Your task to perform on an android device: toggle javascript in the chrome app Image 0: 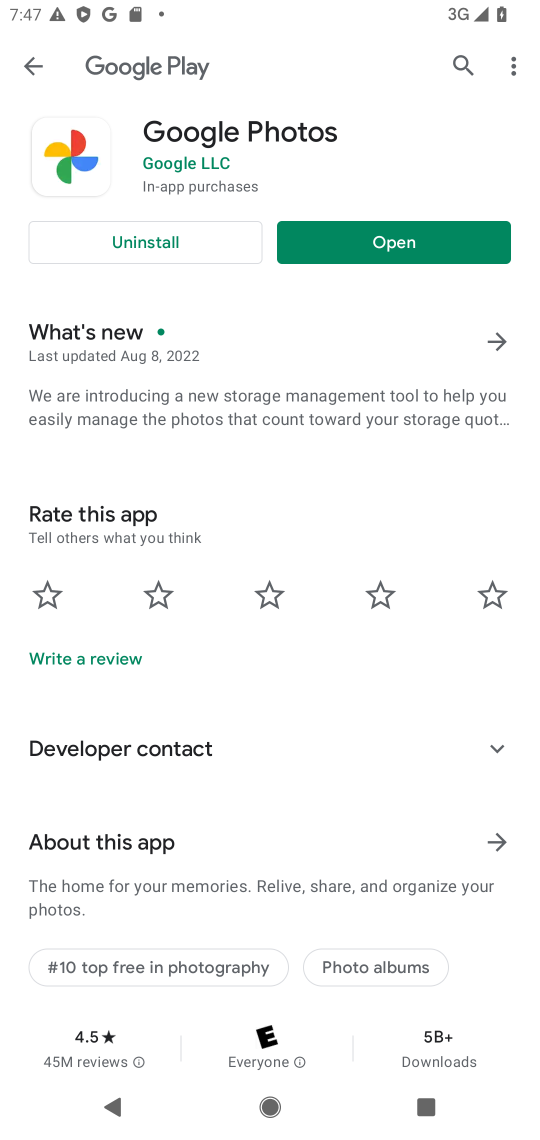
Step 0: press home button
Your task to perform on an android device: toggle javascript in the chrome app Image 1: 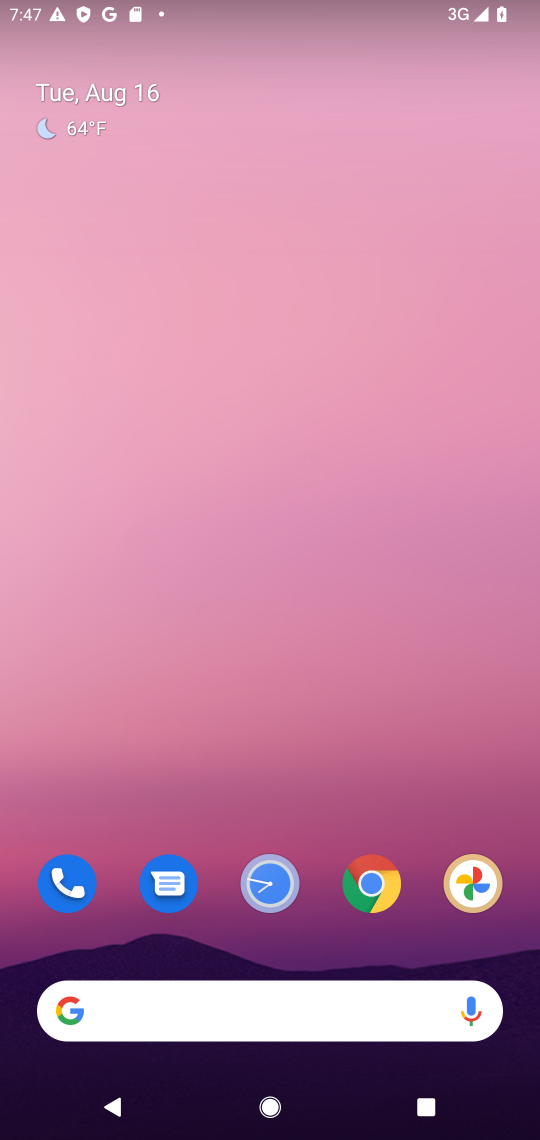
Step 1: click (372, 888)
Your task to perform on an android device: toggle javascript in the chrome app Image 2: 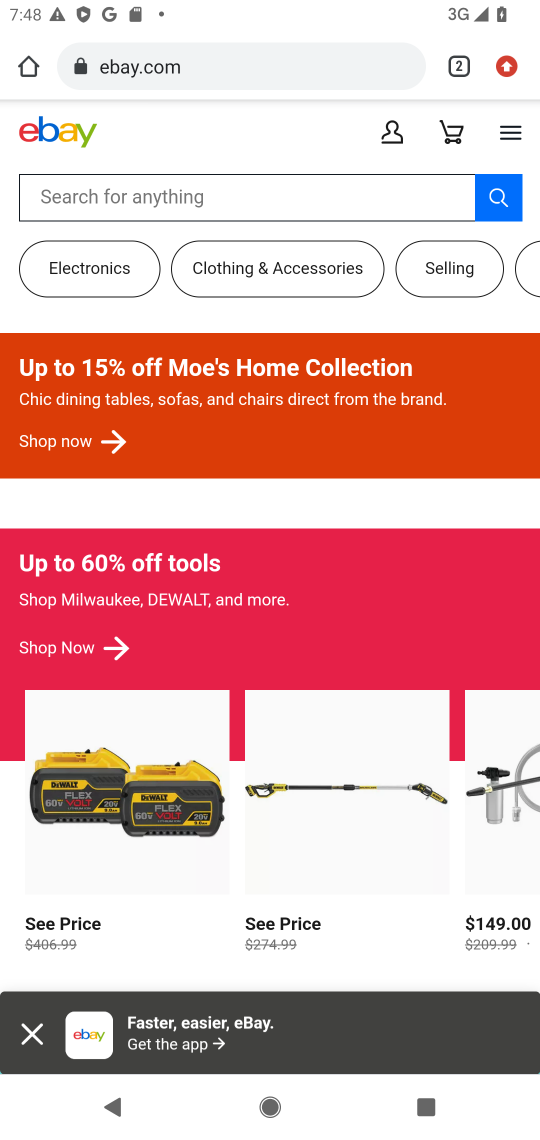
Step 2: click (504, 74)
Your task to perform on an android device: toggle javascript in the chrome app Image 3: 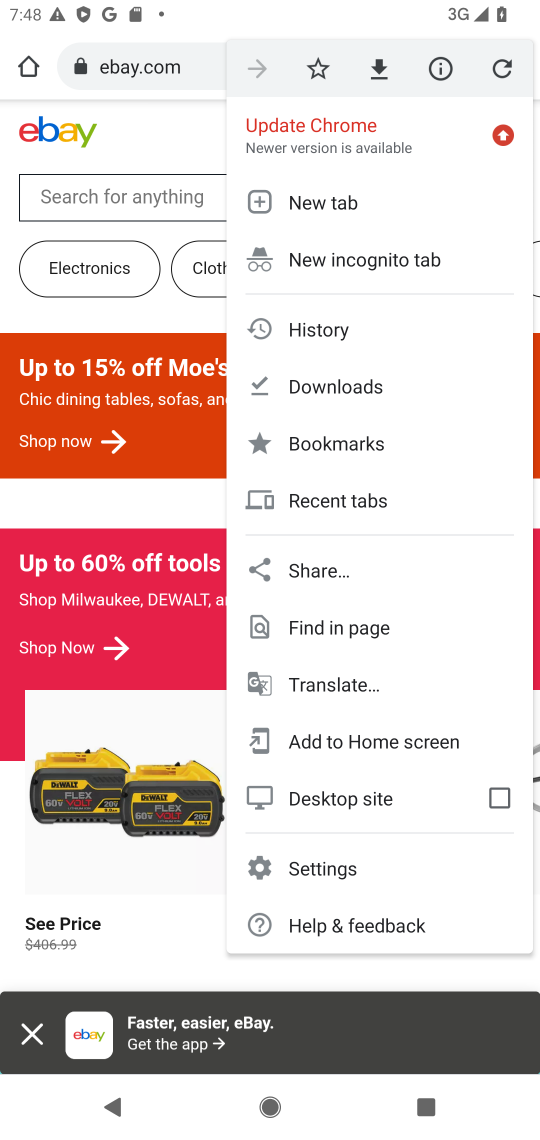
Step 3: click (309, 868)
Your task to perform on an android device: toggle javascript in the chrome app Image 4: 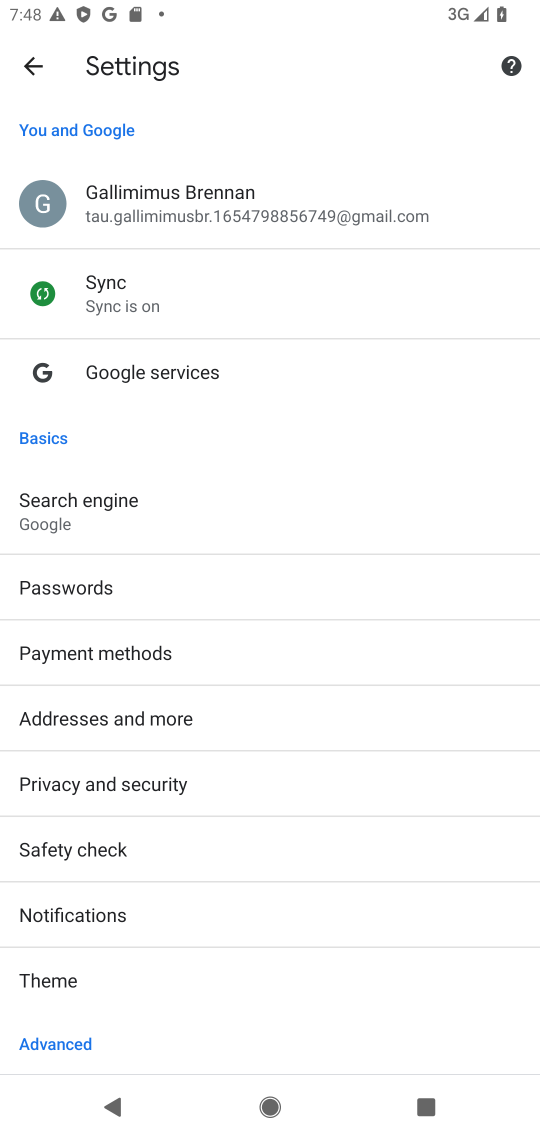
Step 4: drag from (148, 968) to (215, 867)
Your task to perform on an android device: toggle javascript in the chrome app Image 5: 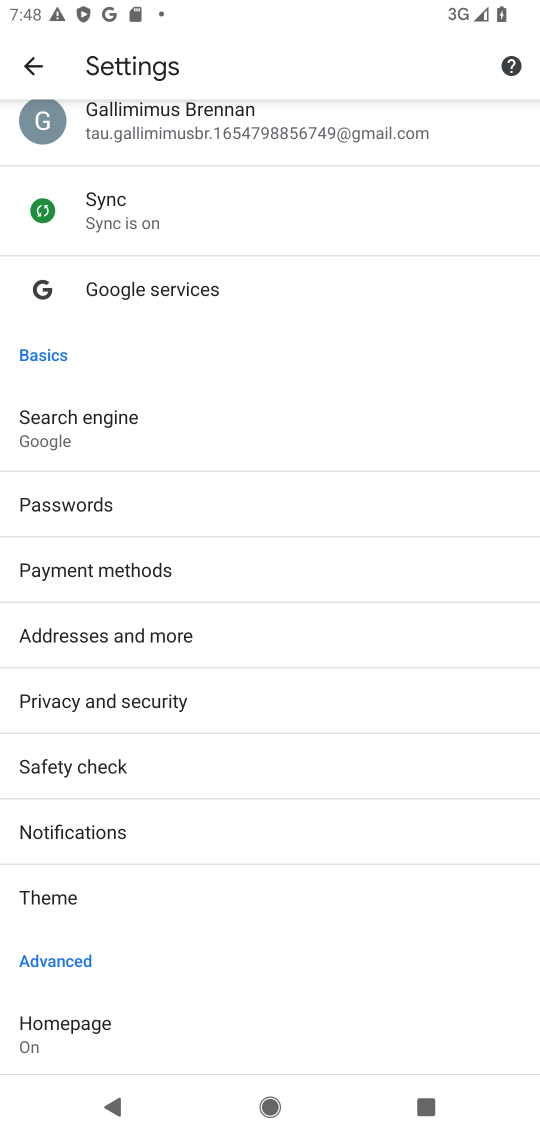
Step 5: drag from (198, 940) to (248, 839)
Your task to perform on an android device: toggle javascript in the chrome app Image 6: 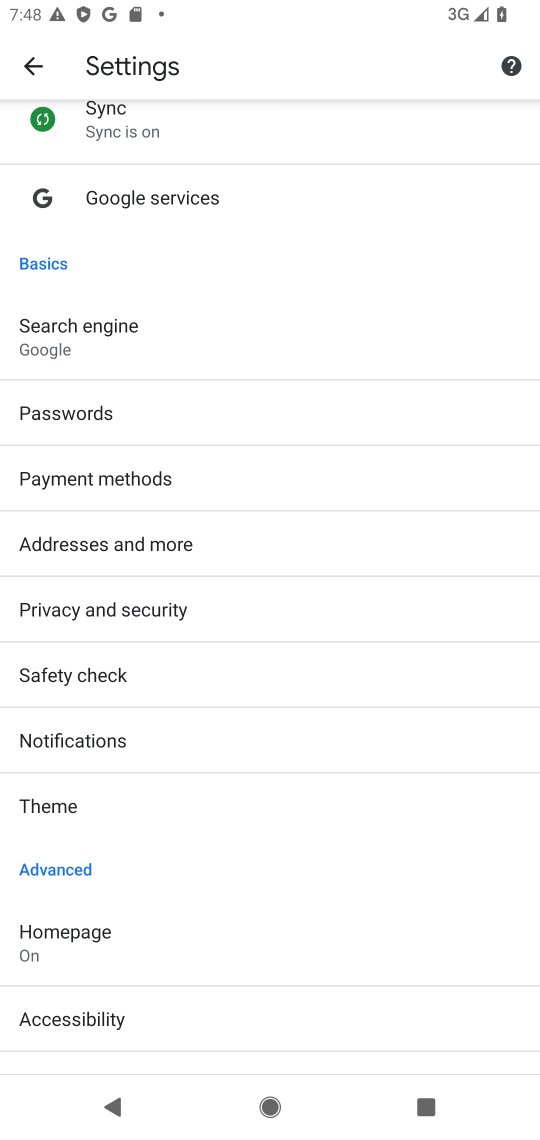
Step 6: drag from (206, 918) to (250, 818)
Your task to perform on an android device: toggle javascript in the chrome app Image 7: 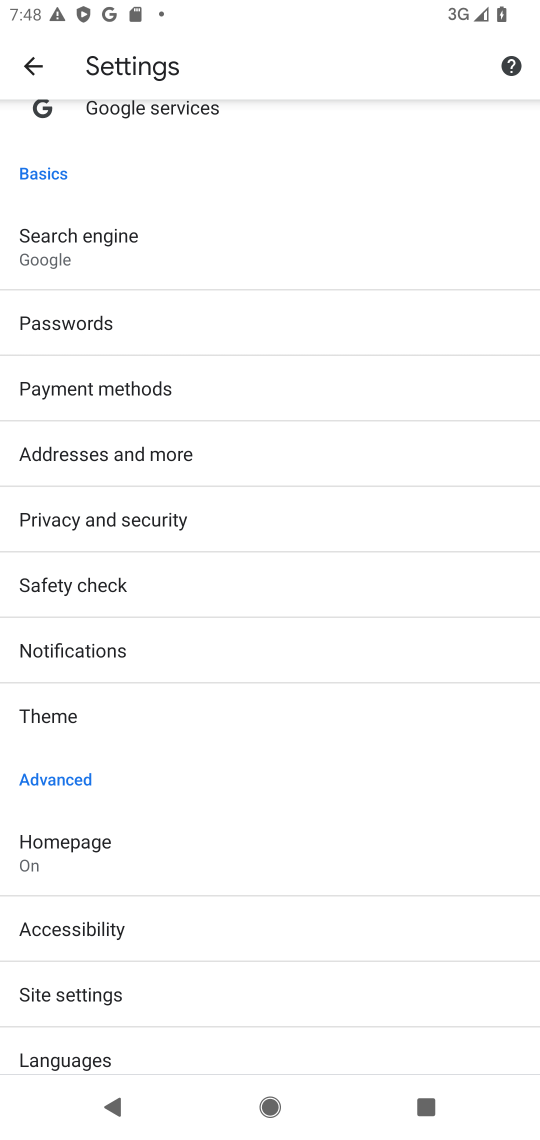
Step 7: drag from (202, 840) to (292, 668)
Your task to perform on an android device: toggle javascript in the chrome app Image 8: 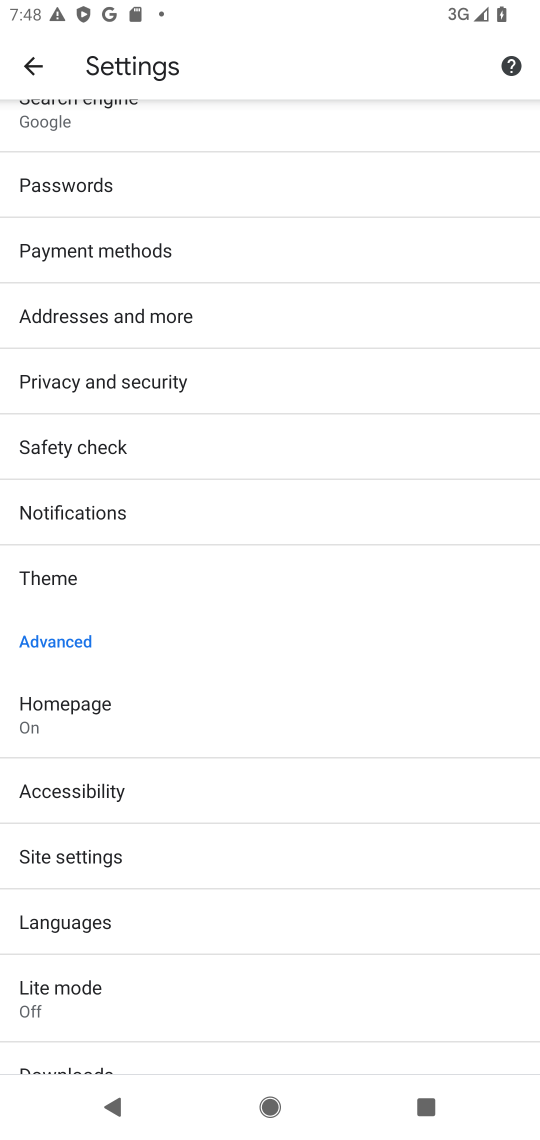
Step 8: drag from (157, 897) to (207, 789)
Your task to perform on an android device: toggle javascript in the chrome app Image 9: 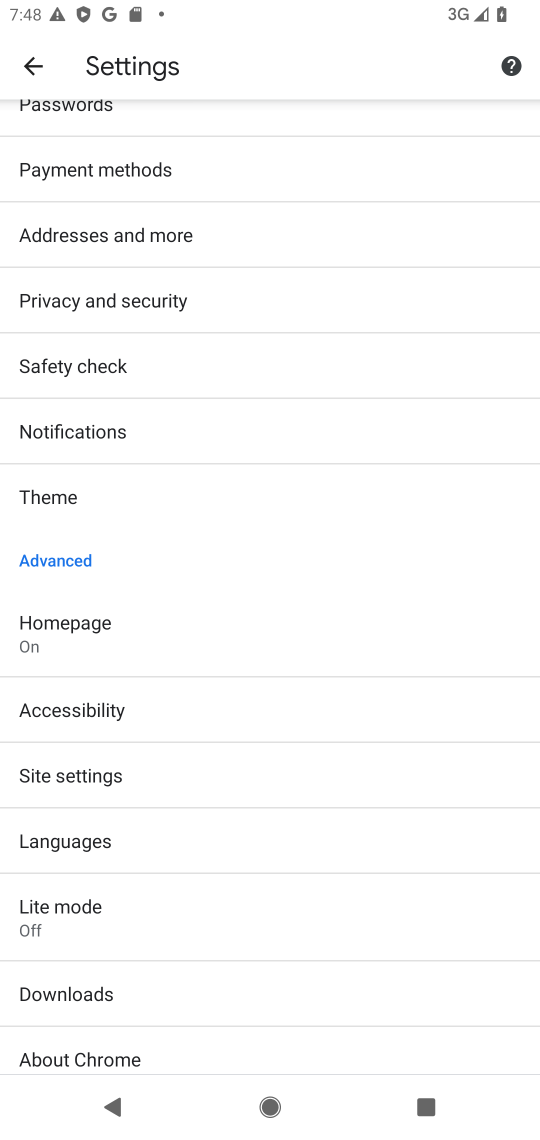
Step 9: click (116, 781)
Your task to perform on an android device: toggle javascript in the chrome app Image 10: 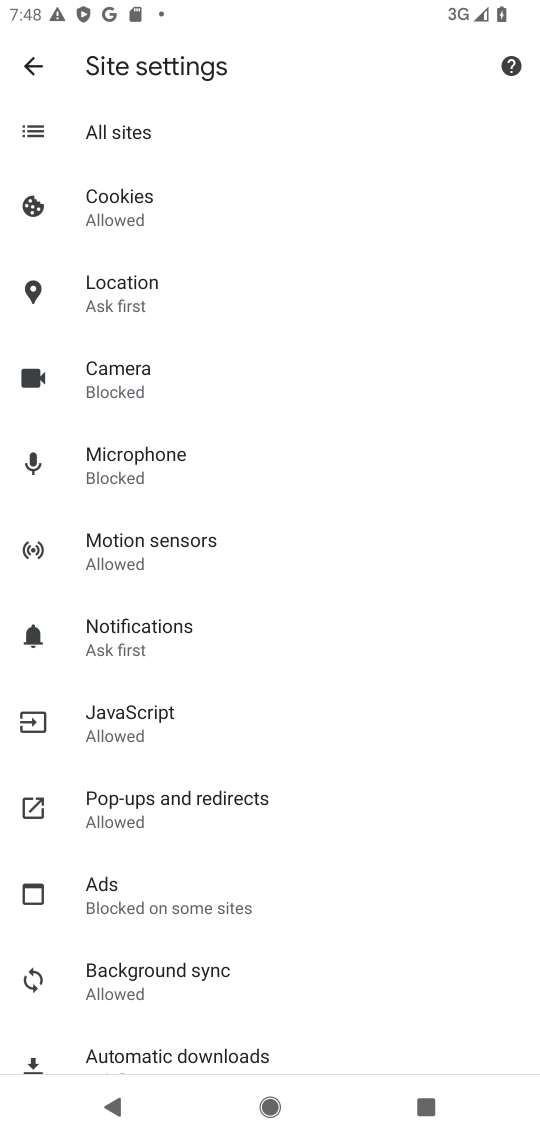
Step 10: click (166, 719)
Your task to perform on an android device: toggle javascript in the chrome app Image 11: 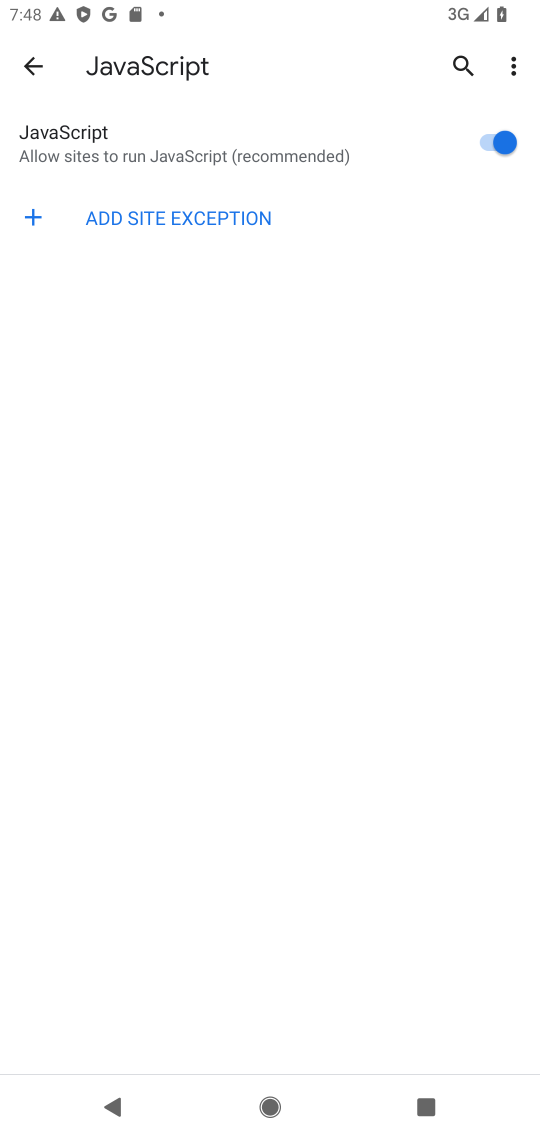
Step 11: click (489, 151)
Your task to perform on an android device: toggle javascript in the chrome app Image 12: 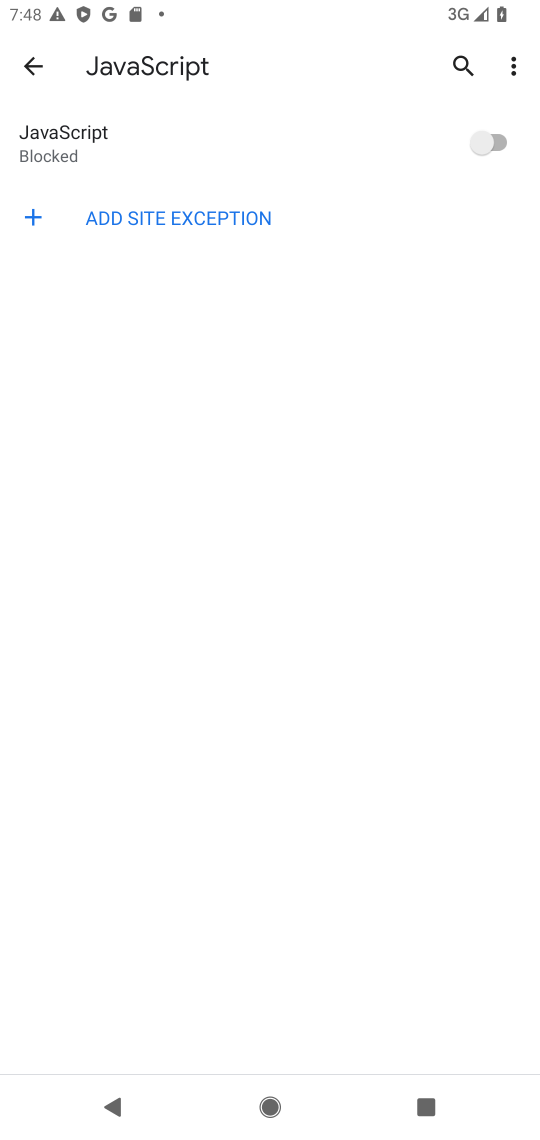
Step 12: task complete